Your task to perform on an android device: What's on my calendar today? Image 0: 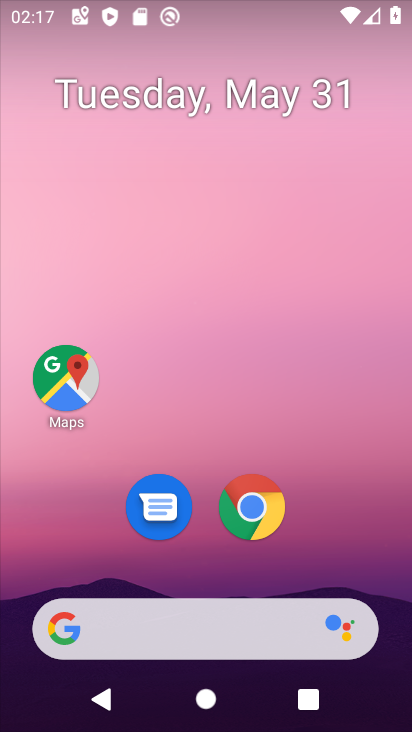
Step 0: click (215, 99)
Your task to perform on an android device: What's on my calendar today? Image 1: 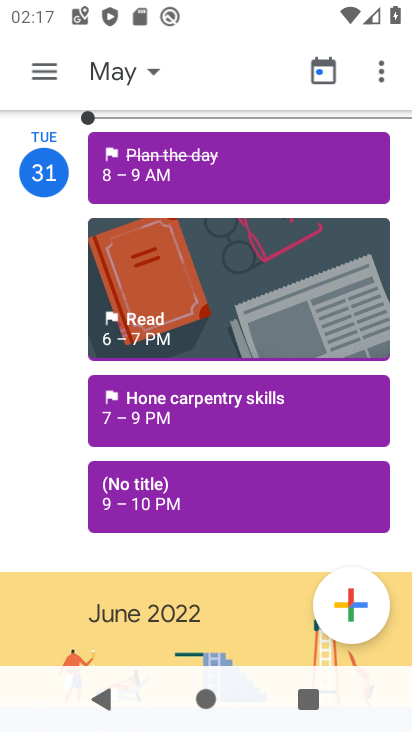
Step 1: task complete